Your task to perform on an android device: turn smart compose on in the gmail app Image 0: 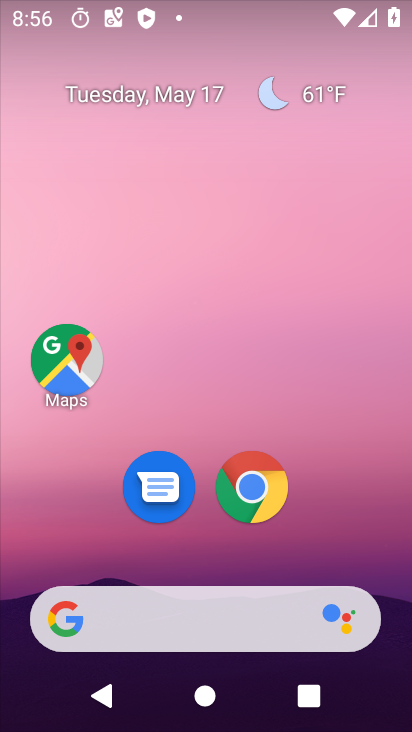
Step 0: drag from (191, 596) to (333, 169)
Your task to perform on an android device: turn smart compose on in the gmail app Image 1: 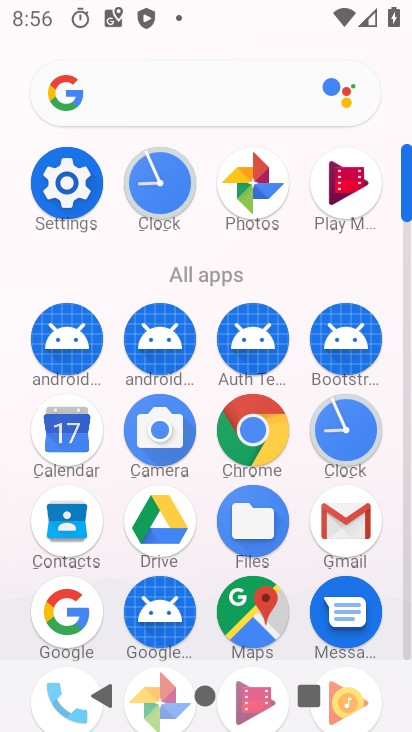
Step 1: click (342, 523)
Your task to perform on an android device: turn smart compose on in the gmail app Image 2: 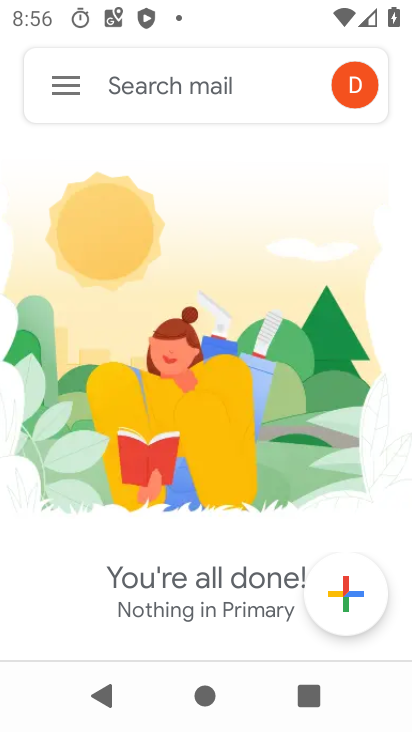
Step 2: click (65, 86)
Your task to perform on an android device: turn smart compose on in the gmail app Image 3: 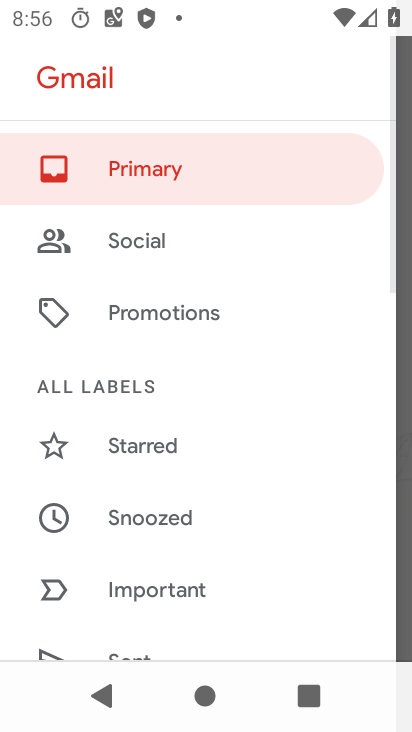
Step 3: drag from (210, 567) to (285, 184)
Your task to perform on an android device: turn smart compose on in the gmail app Image 4: 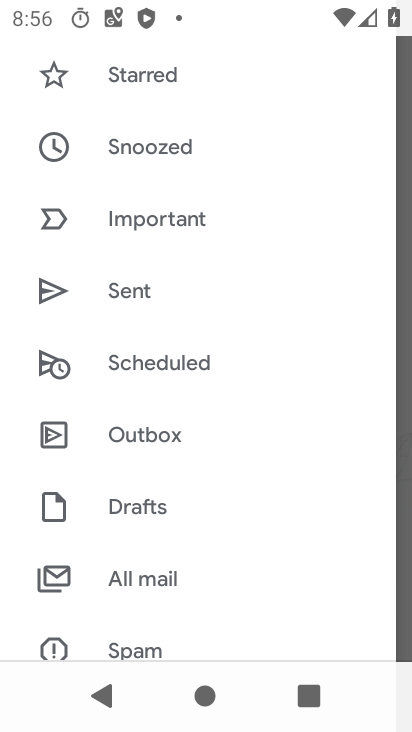
Step 4: drag from (208, 584) to (325, 62)
Your task to perform on an android device: turn smart compose on in the gmail app Image 5: 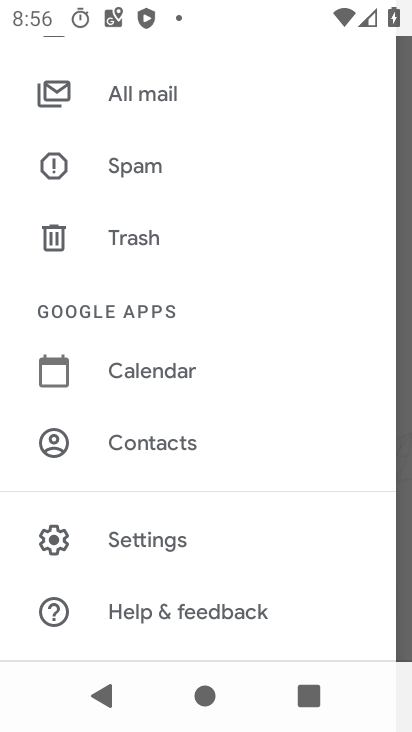
Step 5: click (168, 539)
Your task to perform on an android device: turn smart compose on in the gmail app Image 6: 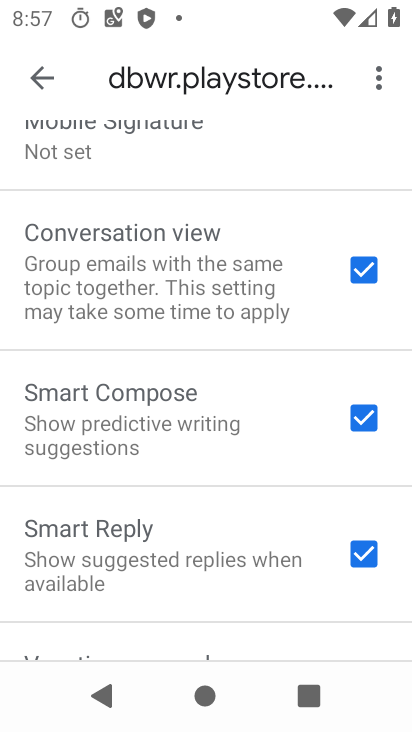
Step 6: task complete